Your task to perform on an android device: change the clock display to analog Image 0: 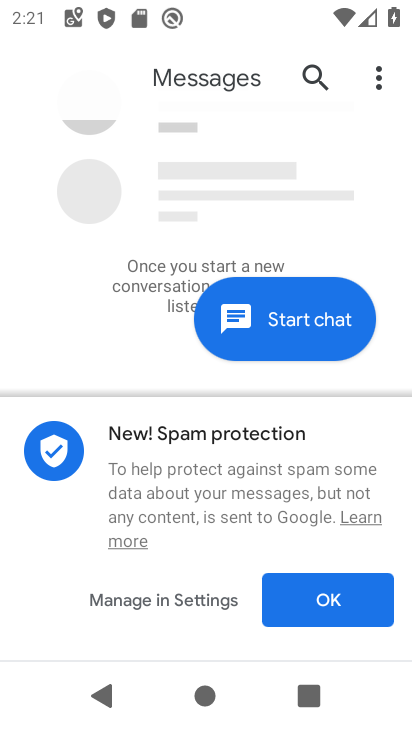
Step 0: press home button
Your task to perform on an android device: change the clock display to analog Image 1: 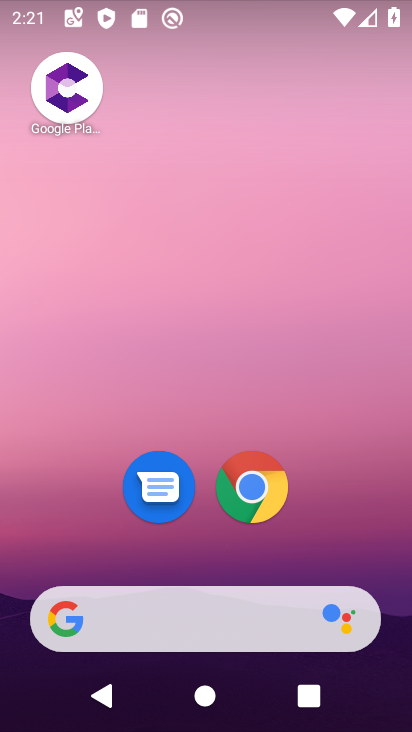
Step 1: drag from (206, 576) to (240, 77)
Your task to perform on an android device: change the clock display to analog Image 2: 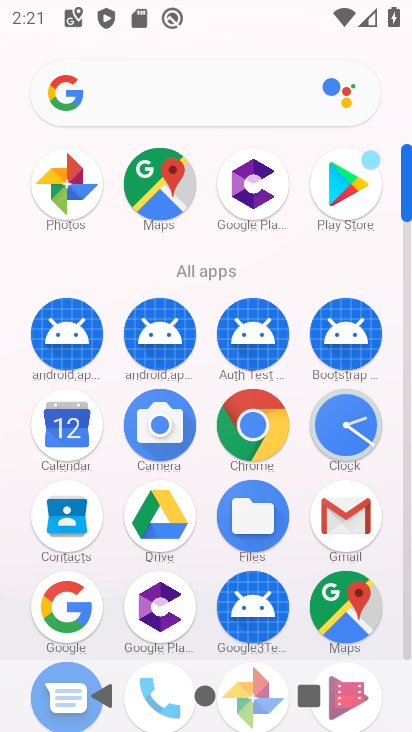
Step 2: drag from (213, 601) to (244, 317)
Your task to perform on an android device: change the clock display to analog Image 3: 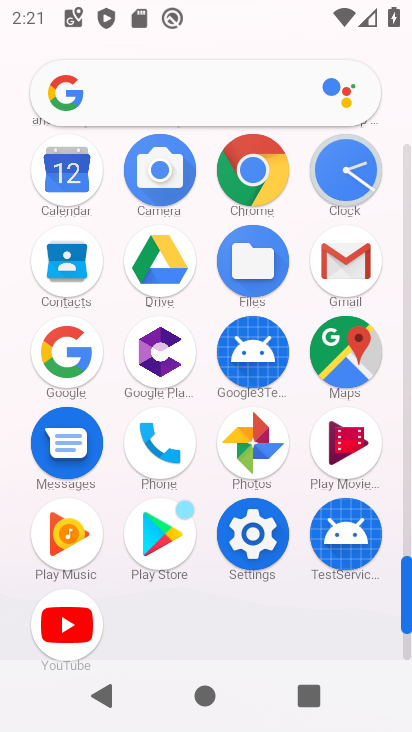
Step 3: click (340, 184)
Your task to perform on an android device: change the clock display to analog Image 4: 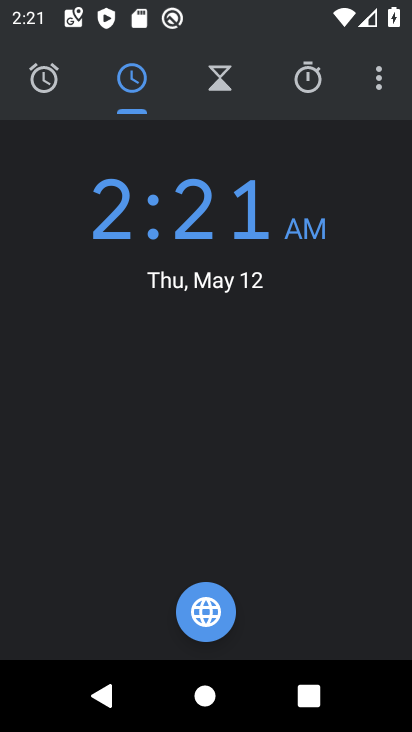
Step 4: click (380, 87)
Your task to perform on an android device: change the clock display to analog Image 5: 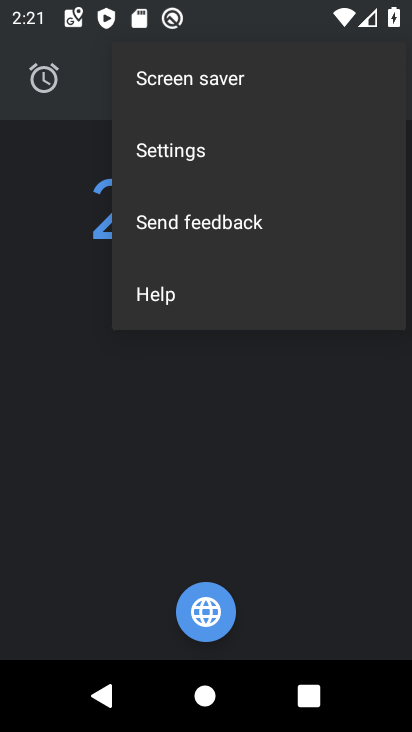
Step 5: click (195, 150)
Your task to perform on an android device: change the clock display to analog Image 6: 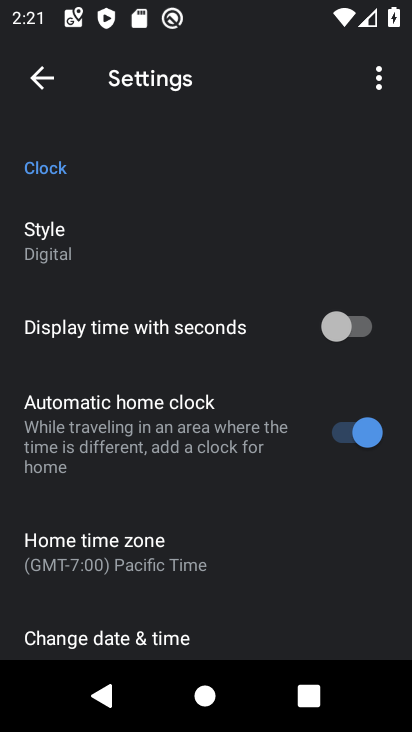
Step 6: click (64, 244)
Your task to perform on an android device: change the clock display to analog Image 7: 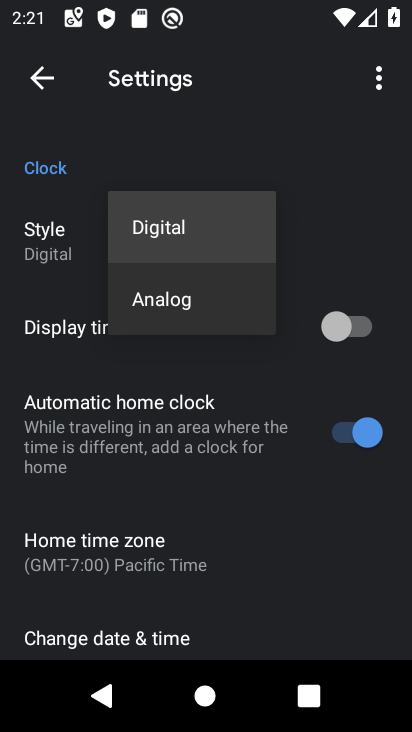
Step 7: click (161, 313)
Your task to perform on an android device: change the clock display to analog Image 8: 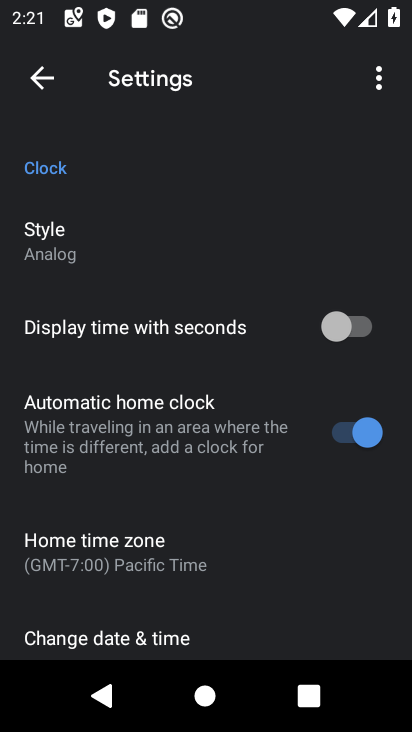
Step 8: task complete